Your task to perform on an android device: Go to Maps Image 0: 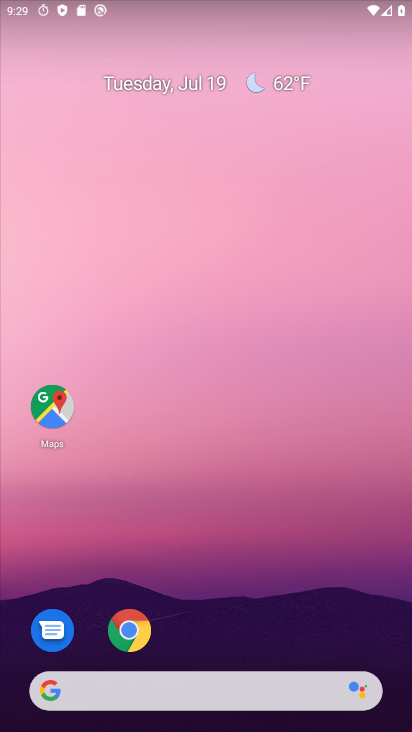
Step 0: click (56, 409)
Your task to perform on an android device: Go to Maps Image 1: 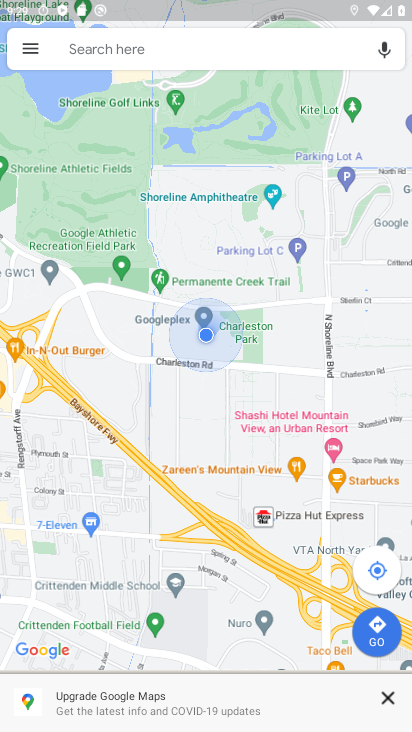
Step 1: task complete